Your task to perform on an android device: turn off priority inbox in the gmail app Image 0: 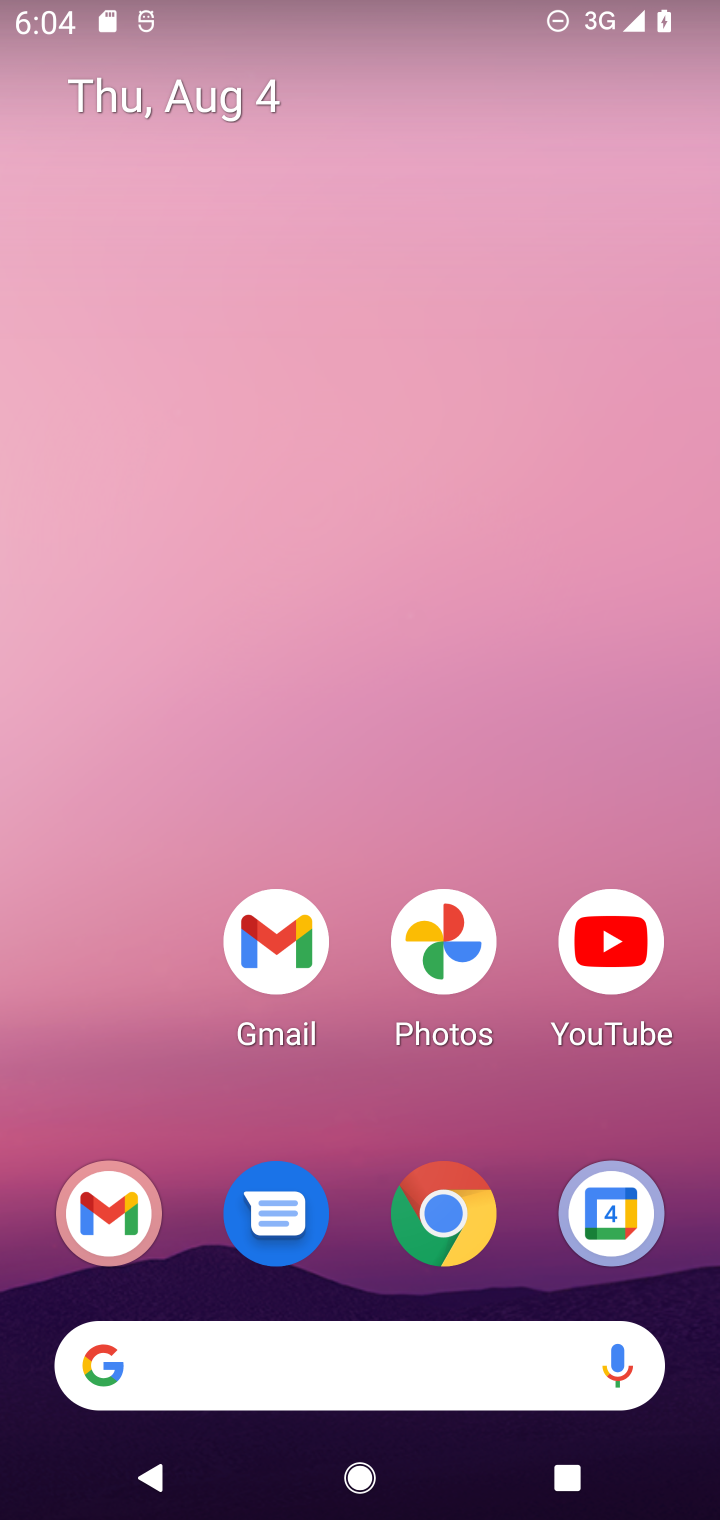
Step 0: drag from (139, 1104) to (148, 524)
Your task to perform on an android device: turn off priority inbox in the gmail app Image 1: 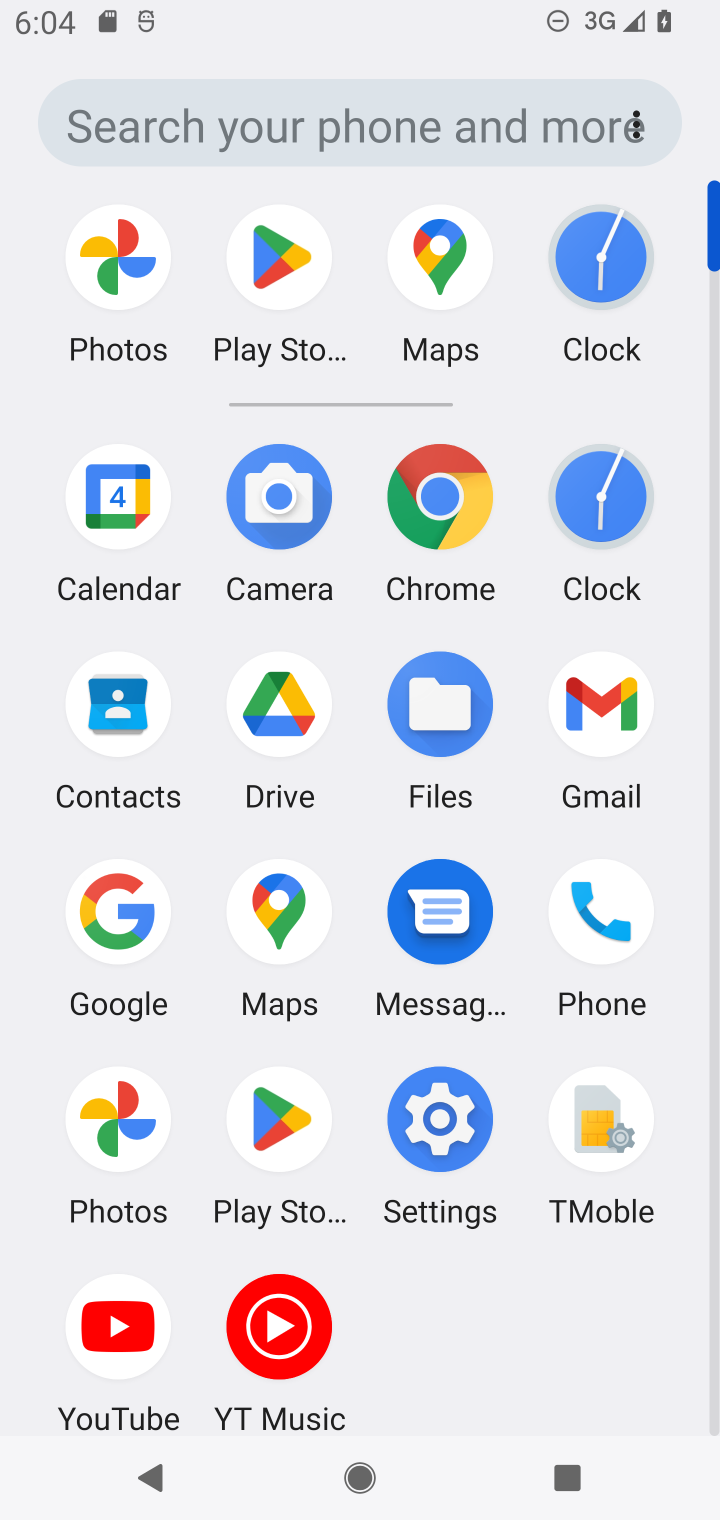
Step 1: click (611, 718)
Your task to perform on an android device: turn off priority inbox in the gmail app Image 2: 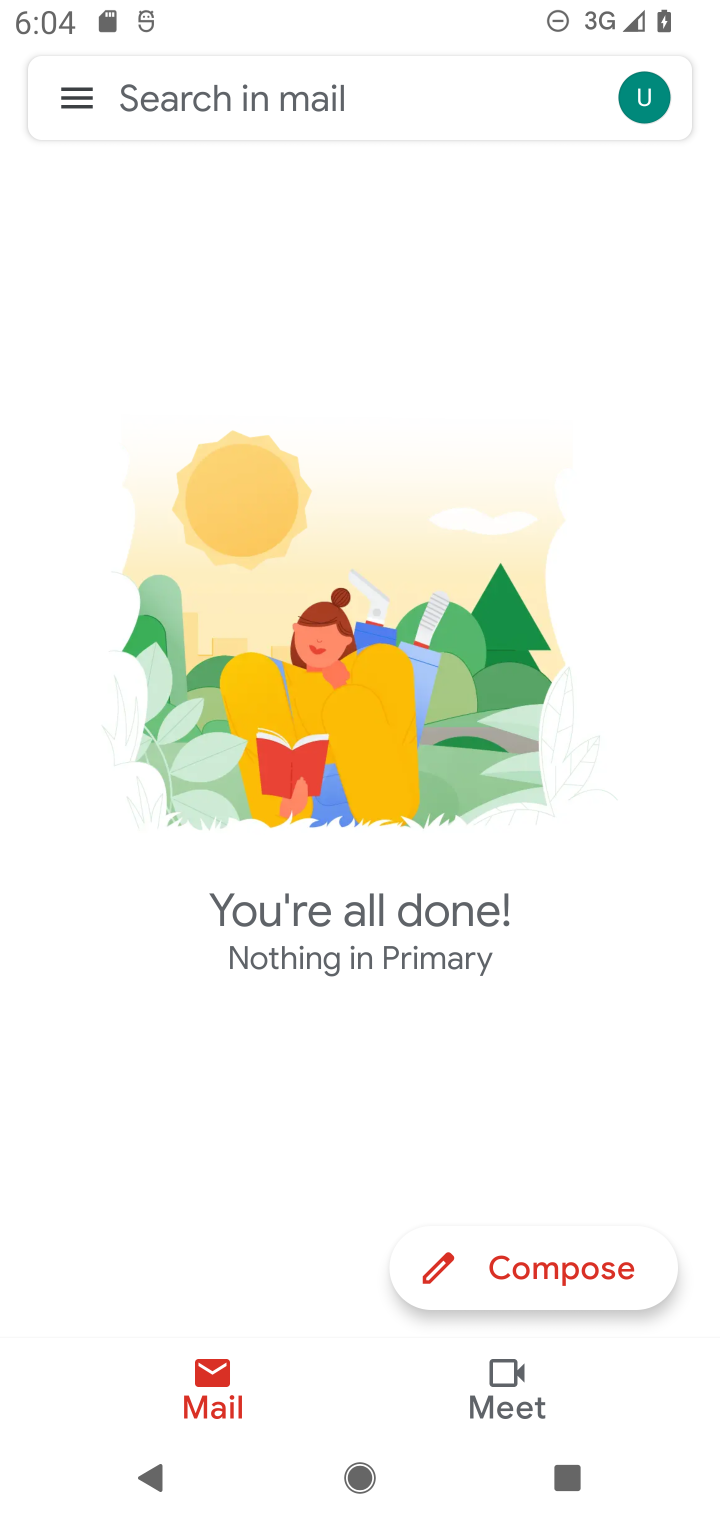
Step 2: click (78, 89)
Your task to perform on an android device: turn off priority inbox in the gmail app Image 3: 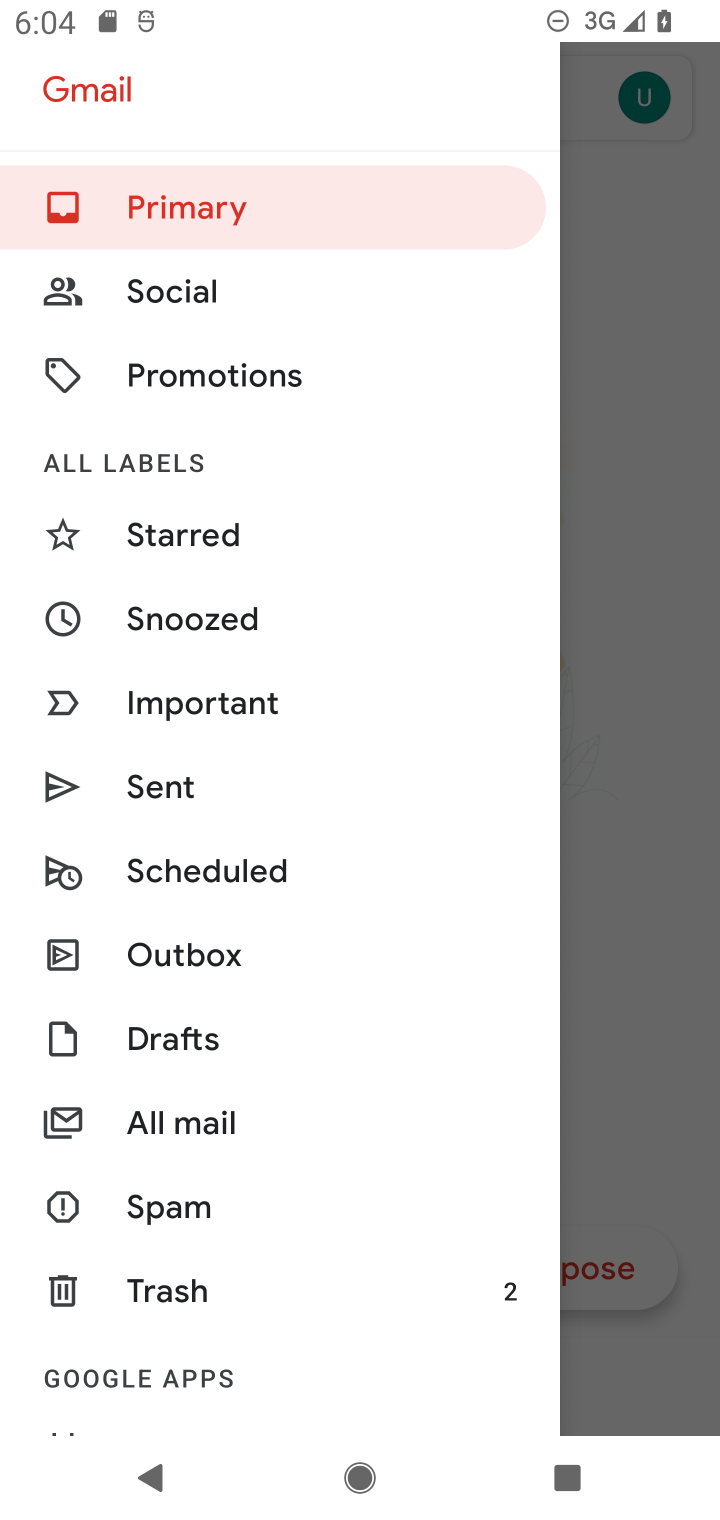
Step 3: drag from (403, 1129) to (422, 697)
Your task to perform on an android device: turn off priority inbox in the gmail app Image 4: 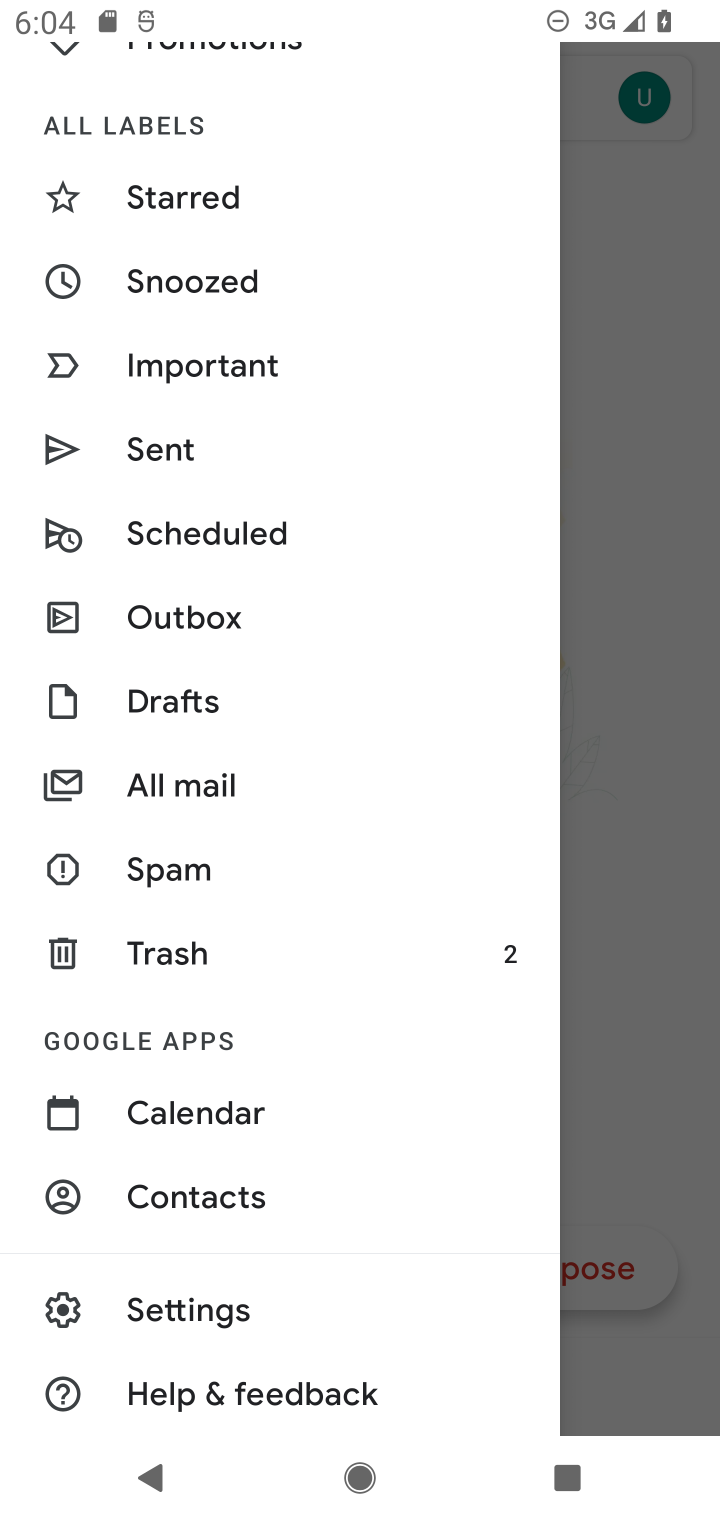
Step 4: click (260, 1311)
Your task to perform on an android device: turn off priority inbox in the gmail app Image 5: 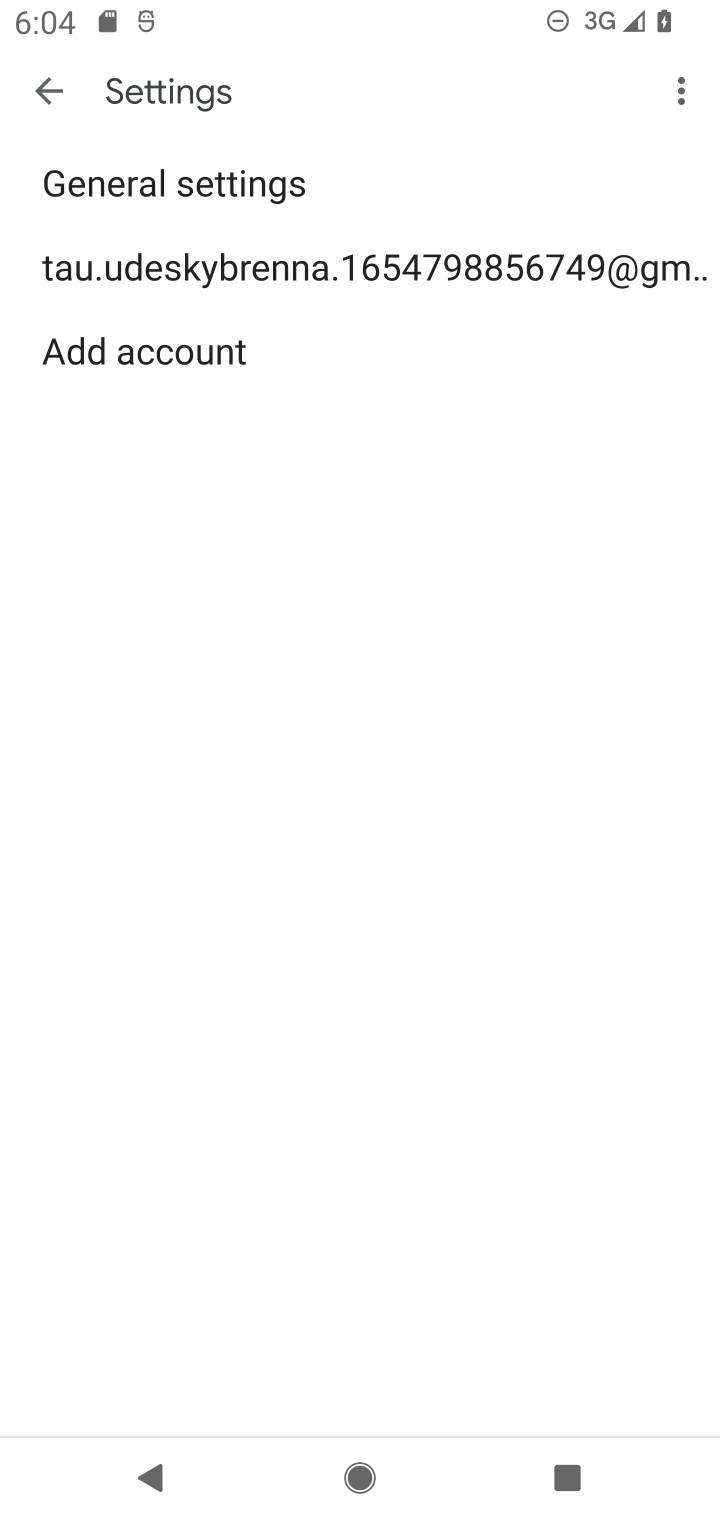
Step 5: click (329, 250)
Your task to perform on an android device: turn off priority inbox in the gmail app Image 6: 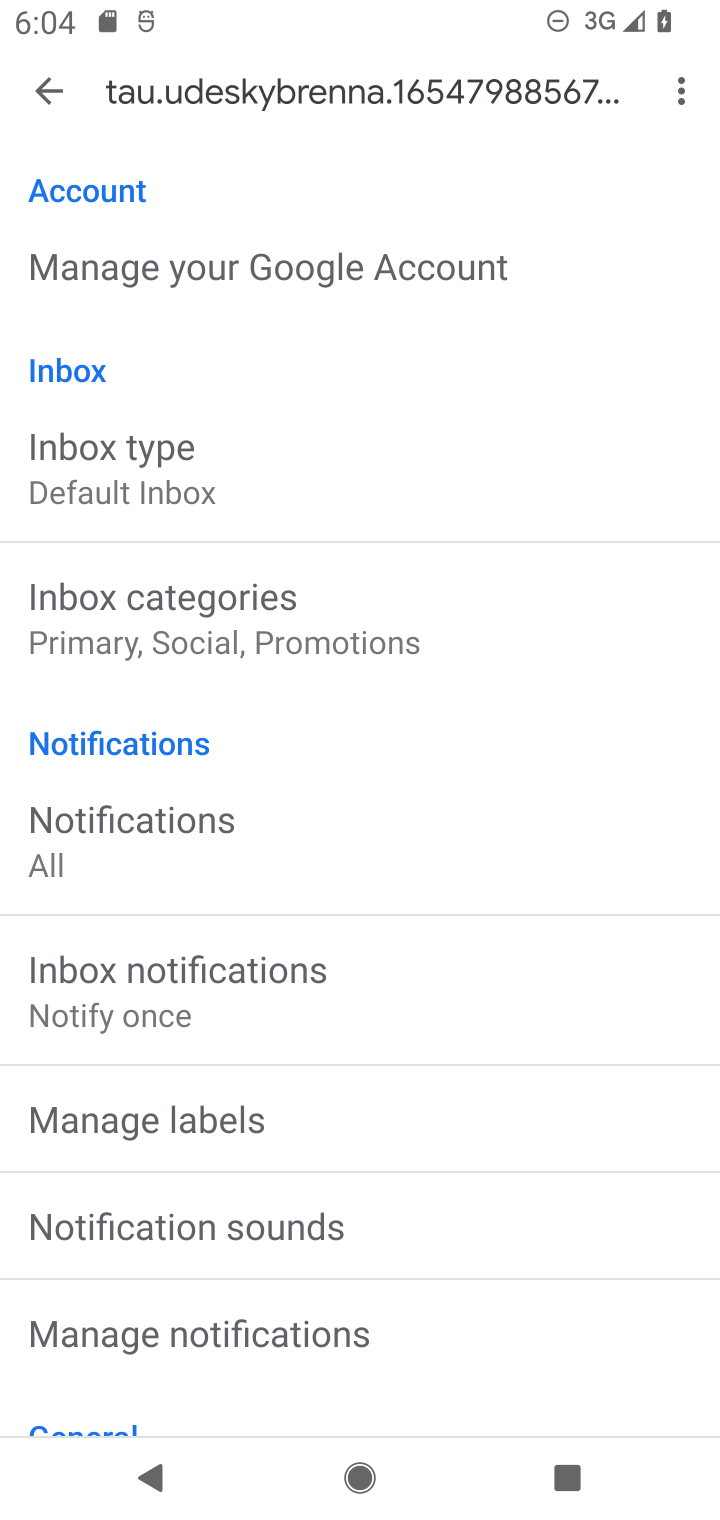
Step 6: task complete